Your task to perform on an android device: toggle notifications settings in the gmail app Image 0: 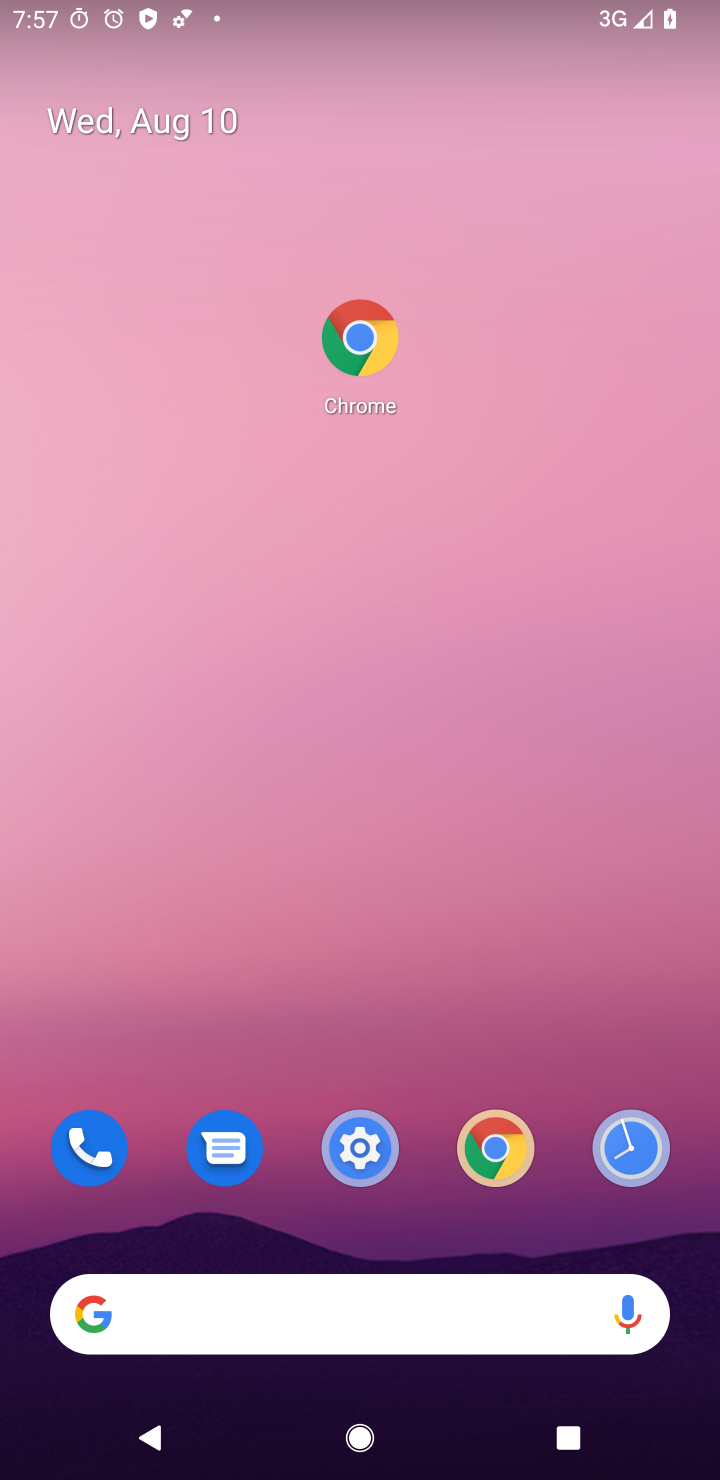
Step 0: drag from (239, 1228) to (334, 179)
Your task to perform on an android device: toggle notifications settings in the gmail app Image 1: 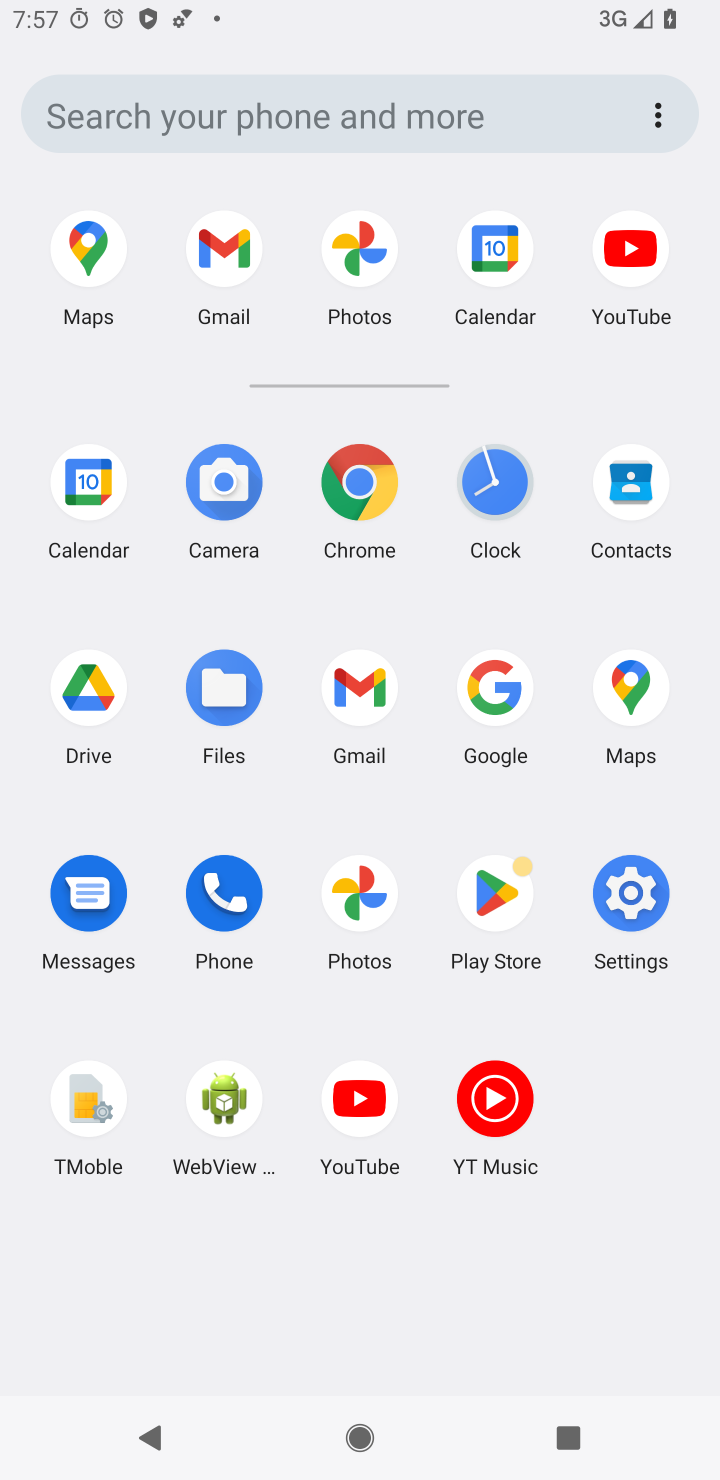
Step 1: click (243, 254)
Your task to perform on an android device: toggle notifications settings in the gmail app Image 2: 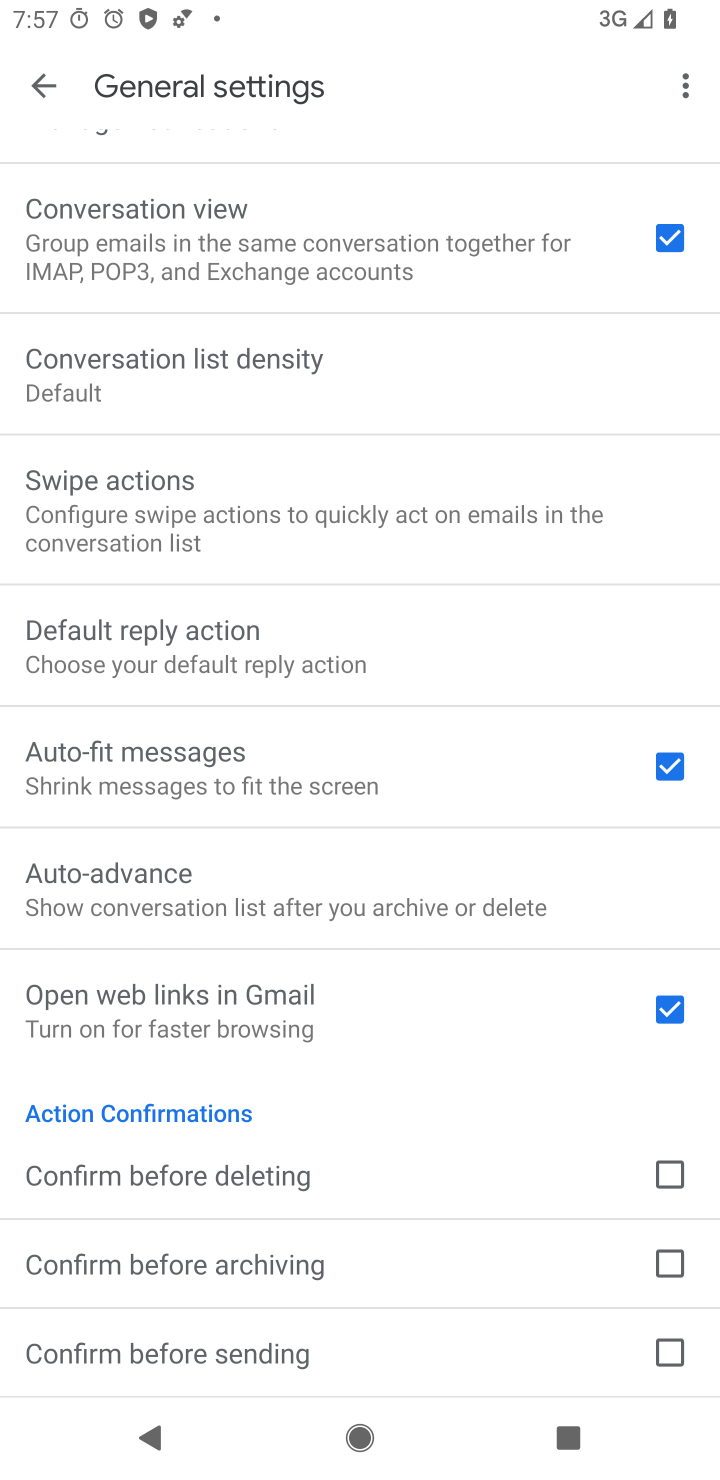
Step 2: click (30, 83)
Your task to perform on an android device: toggle notifications settings in the gmail app Image 3: 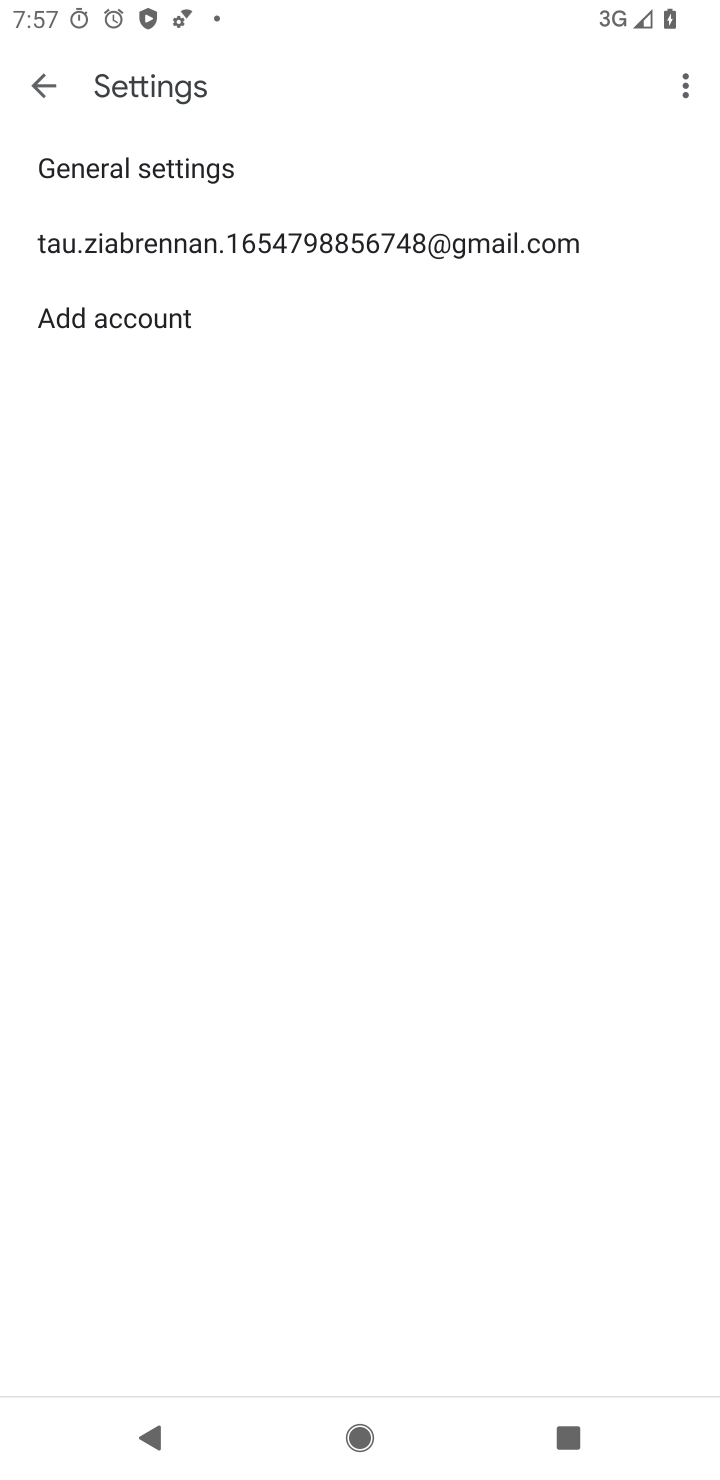
Step 3: click (30, 83)
Your task to perform on an android device: toggle notifications settings in the gmail app Image 4: 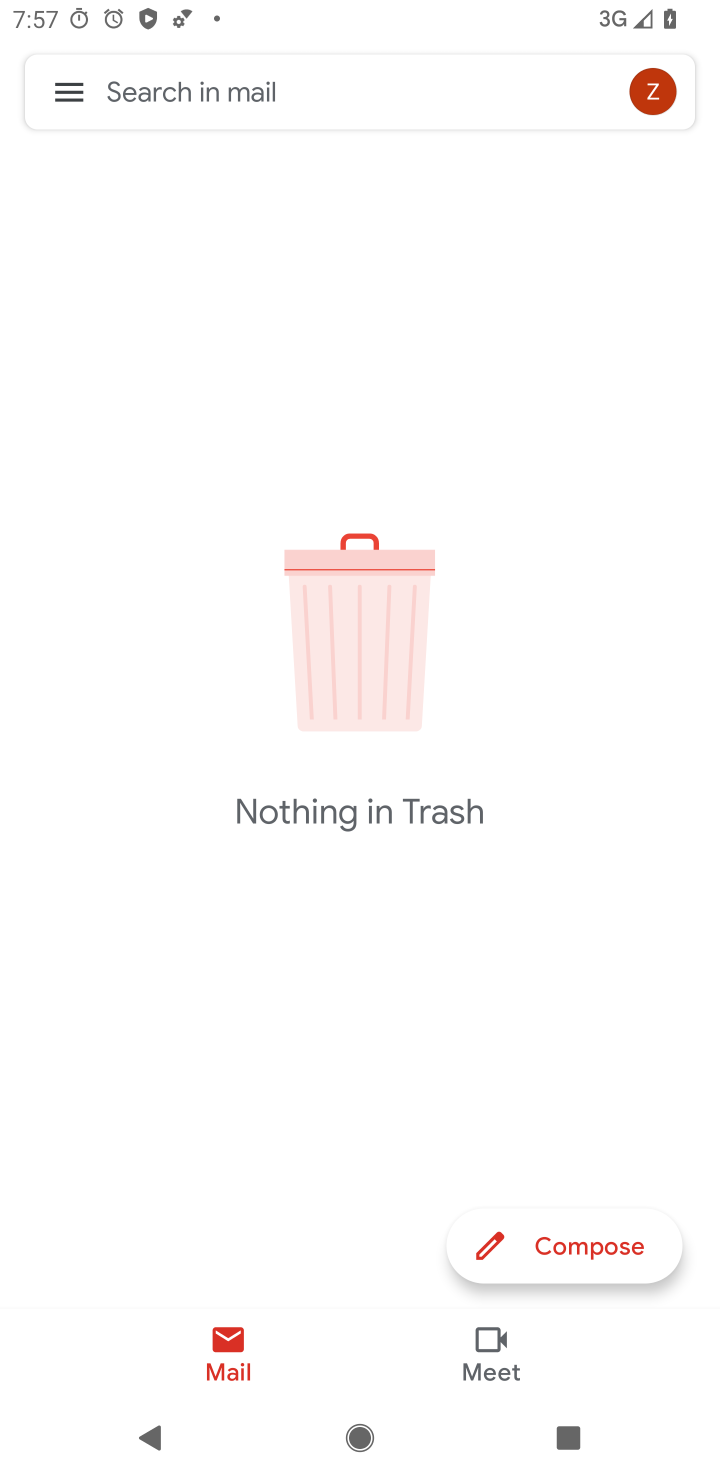
Step 4: click (75, 88)
Your task to perform on an android device: toggle notifications settings in the gmail app Image 5: 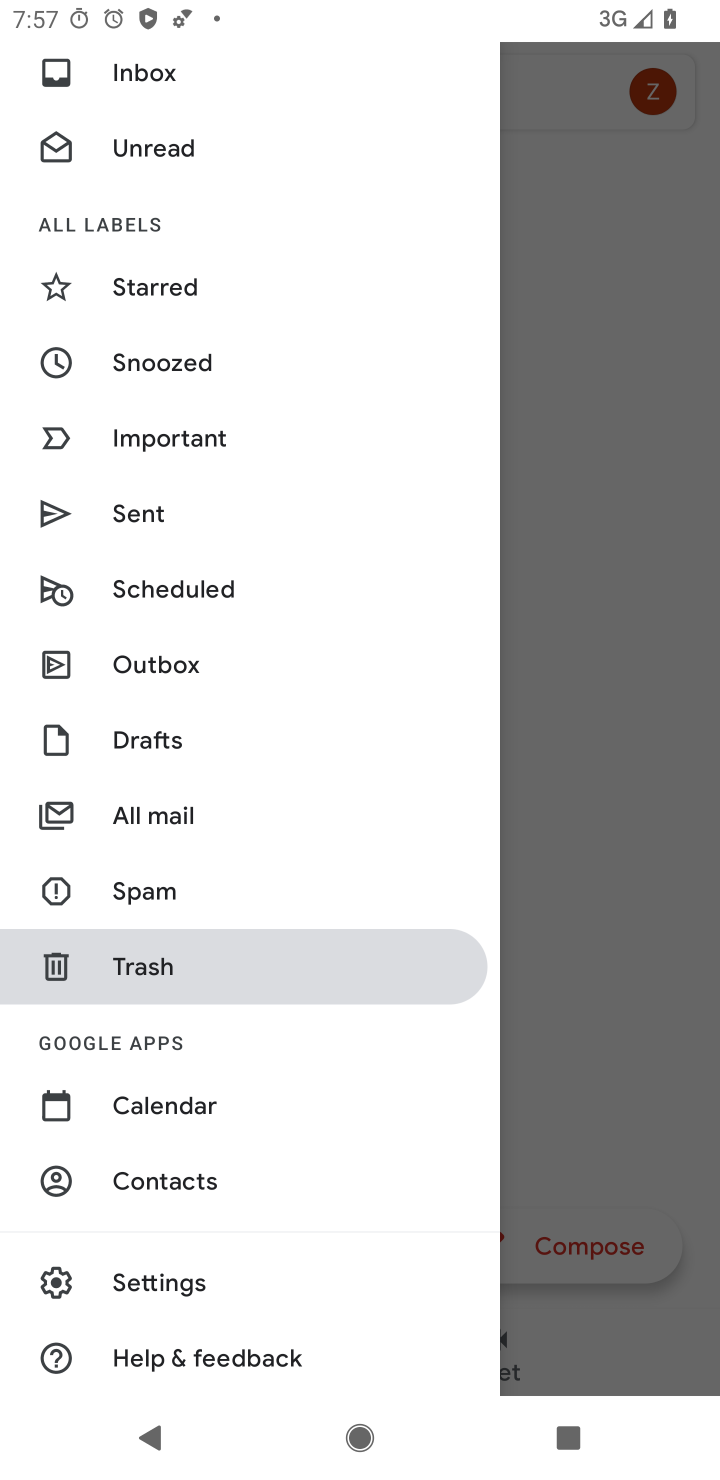
Step 5: drag from (282, 1186) to (293, 1032)
Your task to perform on an android device: toggle notifications settings in the gmail app Image 6: 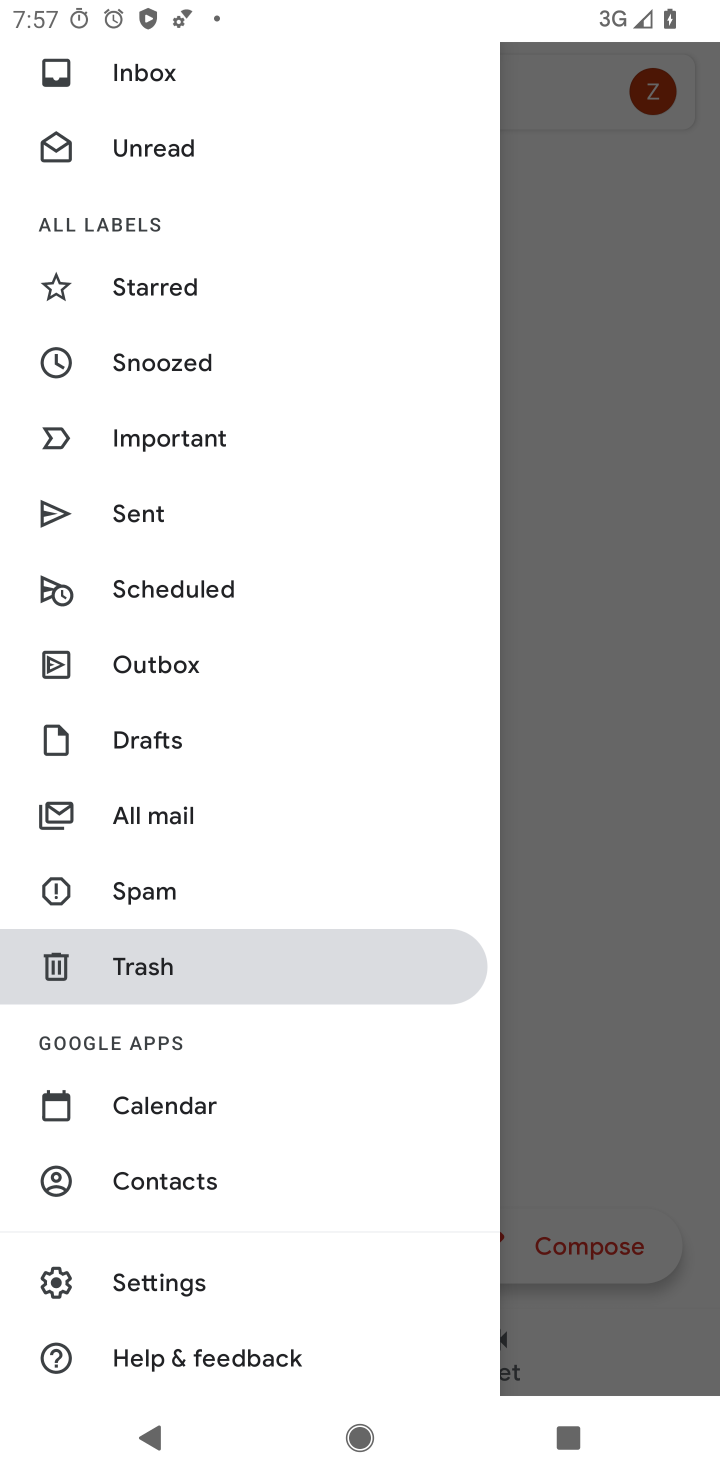
Step 6: click (140, 1280)
Your task to perform on an android device: toggle notifications settings in the gmail app Image 7: 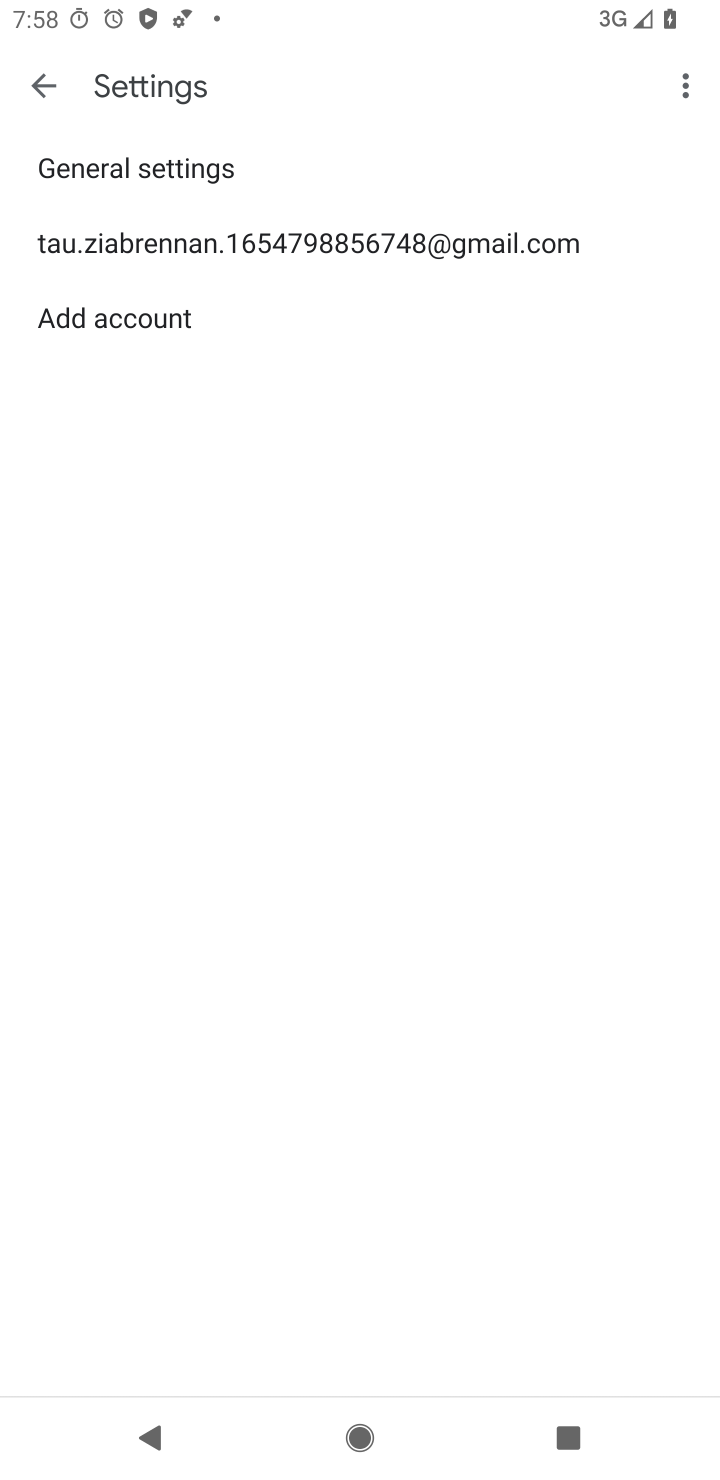
Step 7: click (121, 161)
Your task to perform on an android device: toggle notifications settings in the gmail app Image 8: 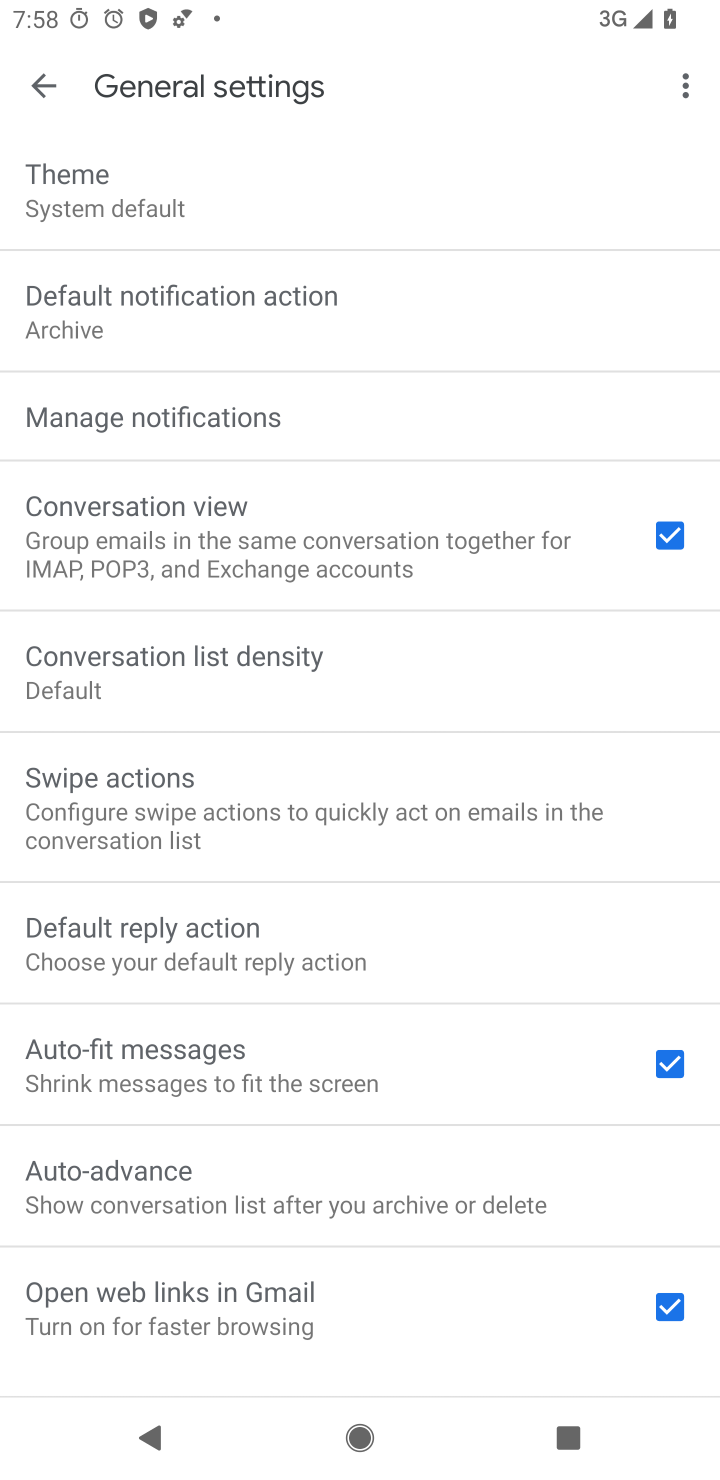
Step 8: click (91, 420)
Your task to perform on an android device: toggle notifications settings in the gmail app Image 9: 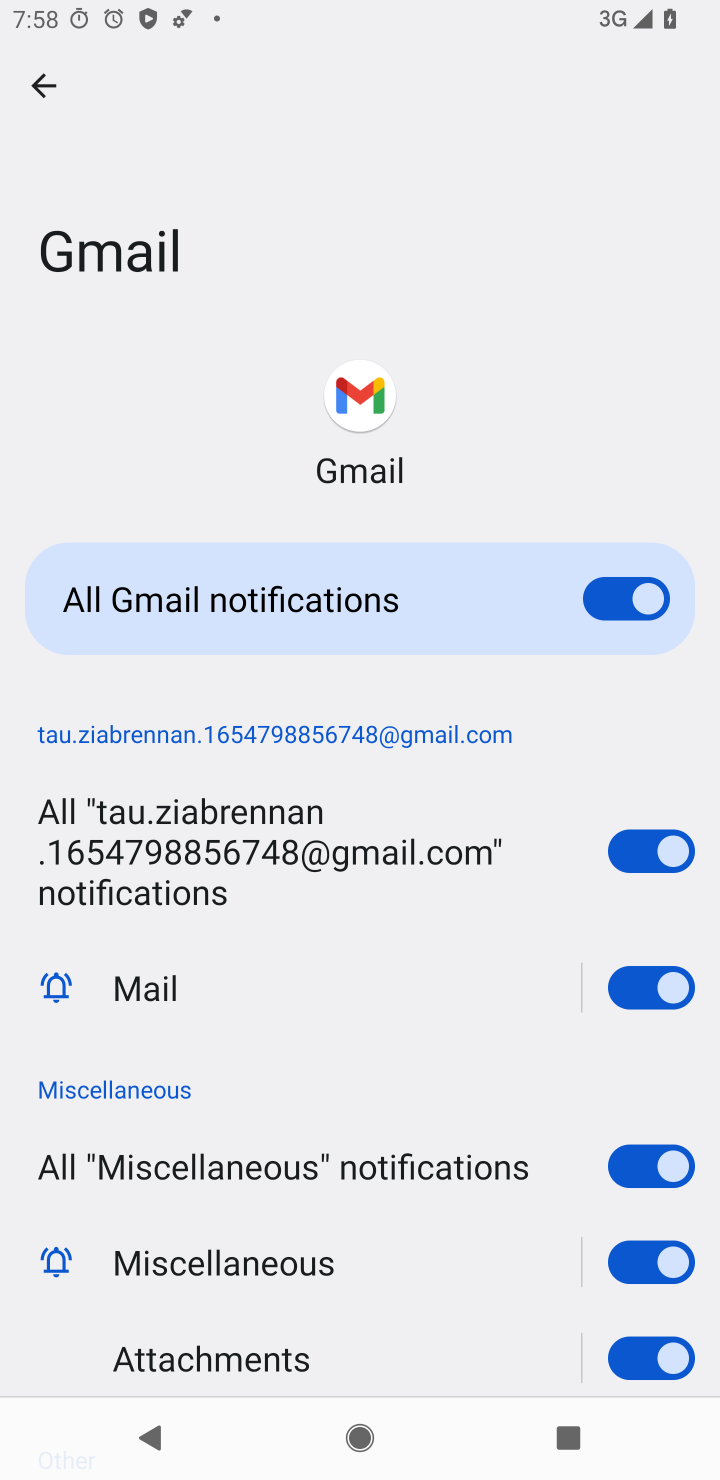
Step 9: click (609, 597)
Your task to perform on an android device: toggle notifications settings in the gmail app Image 10: 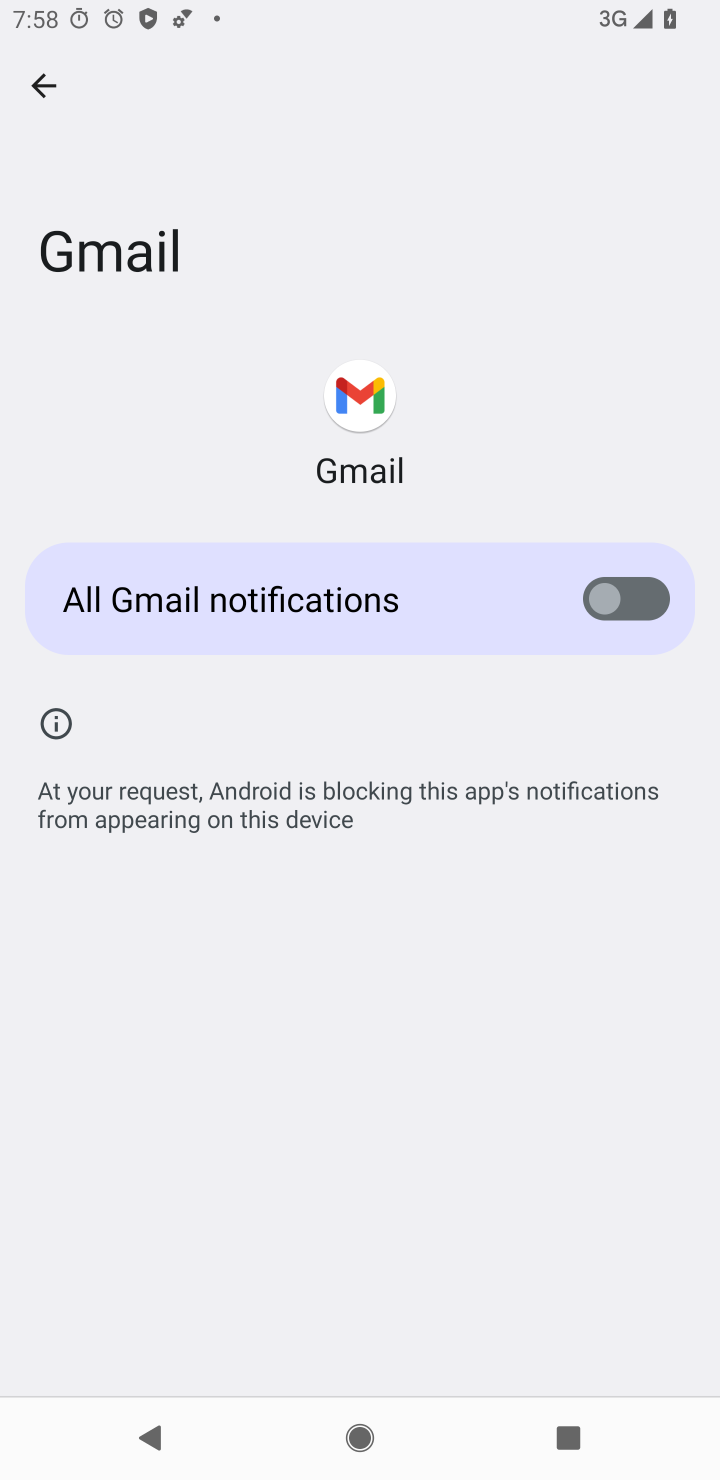
Step 10: click (609, 597)
Your task to perform on an android device: toggle notifications settings in the gmail app Image 11: 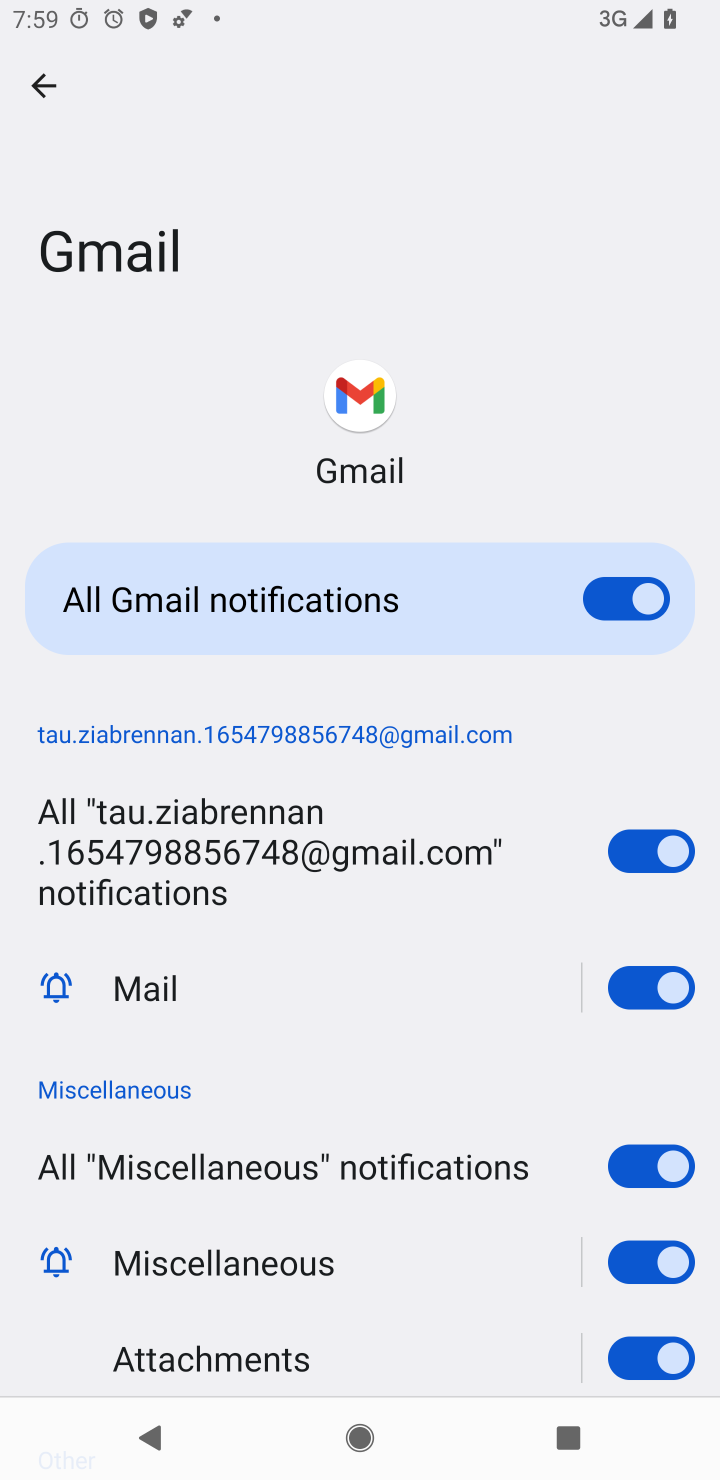
Step 11: task complete